Your task to perform on an android device: Open battery settings Image 0: 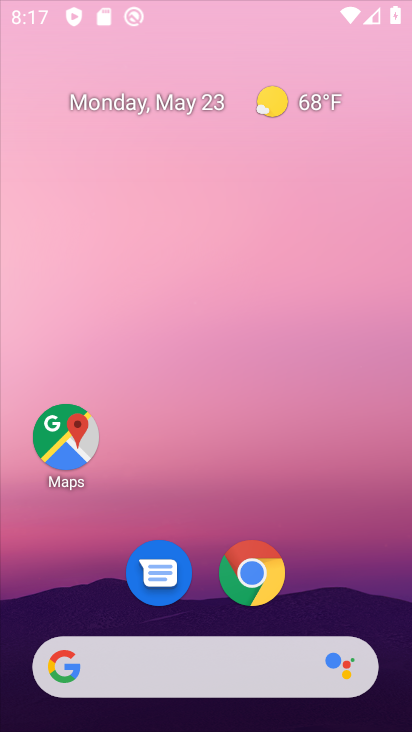
Step 0: press home button
Your task to perform on an android device: Open battery settings Image 1: 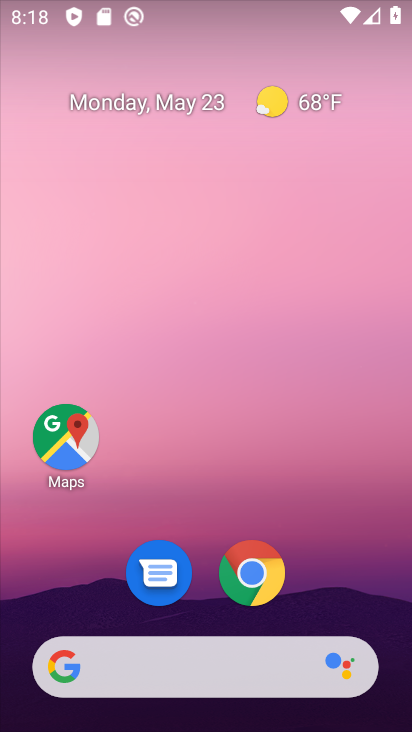
Step 1: drag from (206, 614) to (257, 260)
Your task to perform on an android device: Open battery settings Image 2: 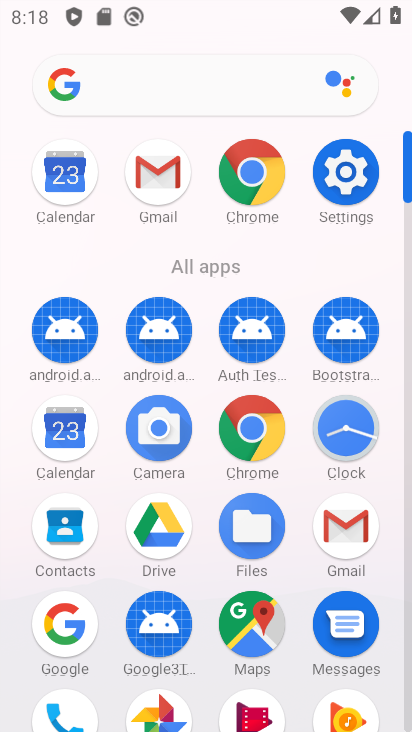
Step 2: click (343, 168)
Your task to perform on an android device: Open battery settings Image 3: 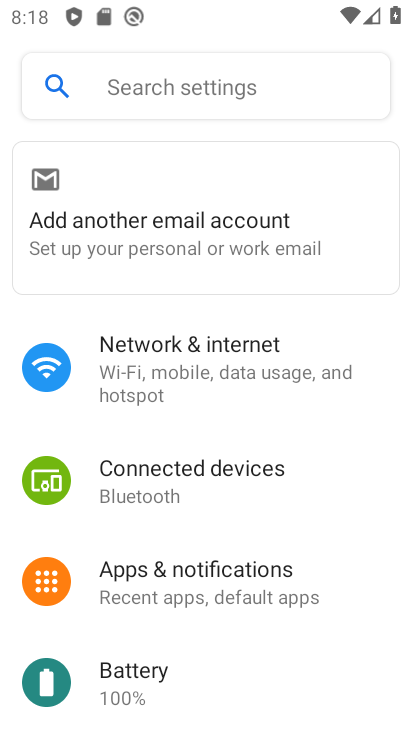
Step 3: click (174, 664)
Your task to perform on an android device: Open battery settings Image 4: 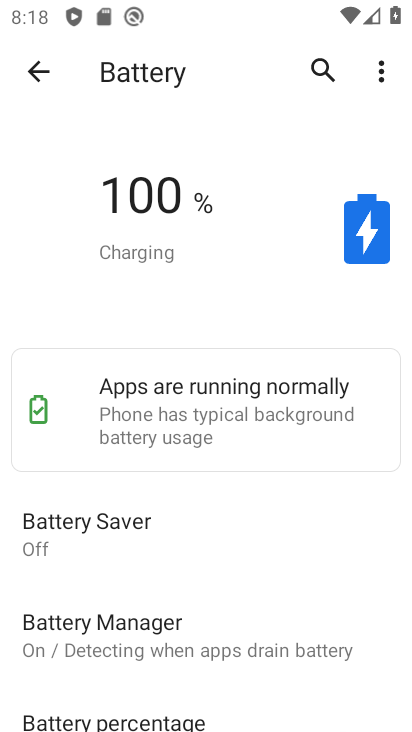
Step 4: task complete